Your task to perform on an android device: turn on location history Image 0: 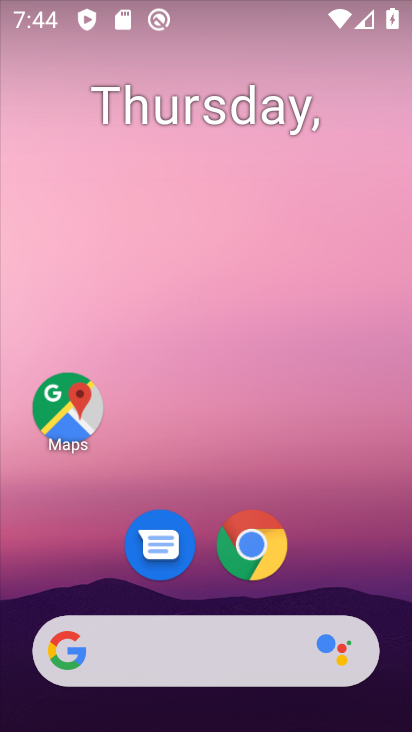
Step 0: click (219, 147)
Your task to perform on an android device: turn on location history Image 1: 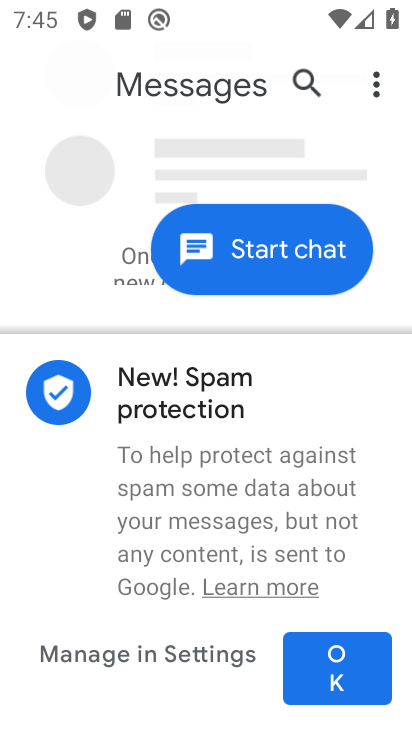
Step 1: press home button
Your task to perform on an android device: turn on location history Image 2: 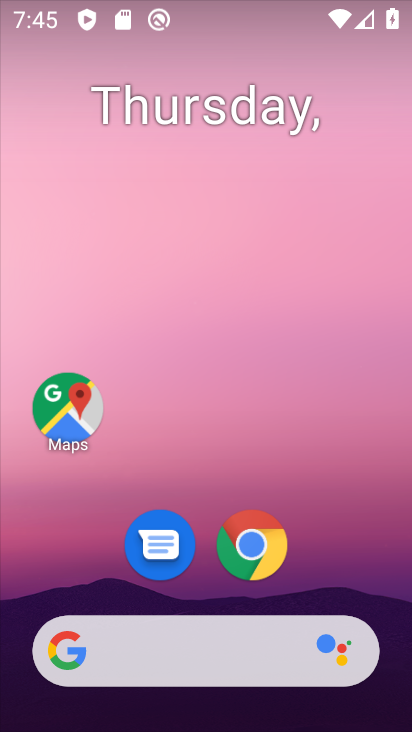
Step 2: drag from (192, 587) to (212, 157)
Your task to perform on an android device: turn on location history Image 3: 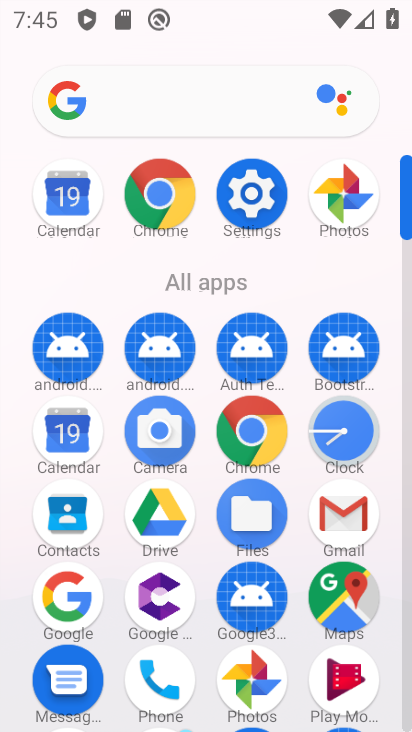
Step 3: click (269, 190)
Your task to perform on an android device: turn on location history Image 4: 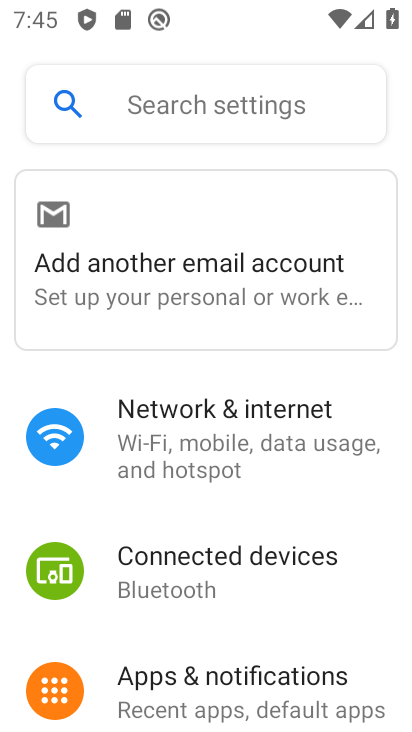
Step 4: drag from (231, 502) to (242, 50)
Your task to perform on an android device: turn on location history Image 5: 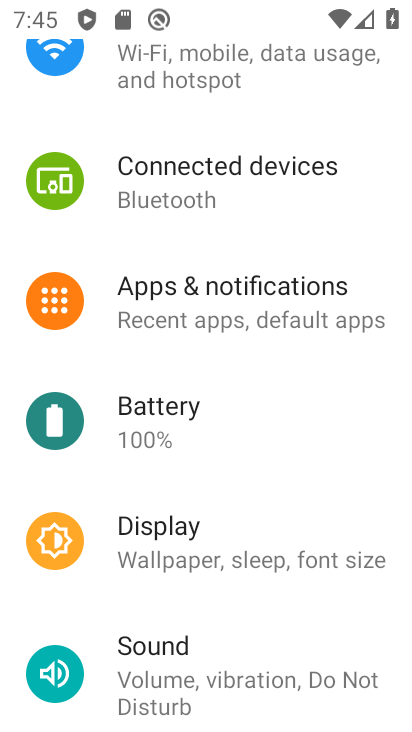
Step 5: drag from (243, 543) to (252, 60)
Your task to perform on an android device: turn on location history Image 6: 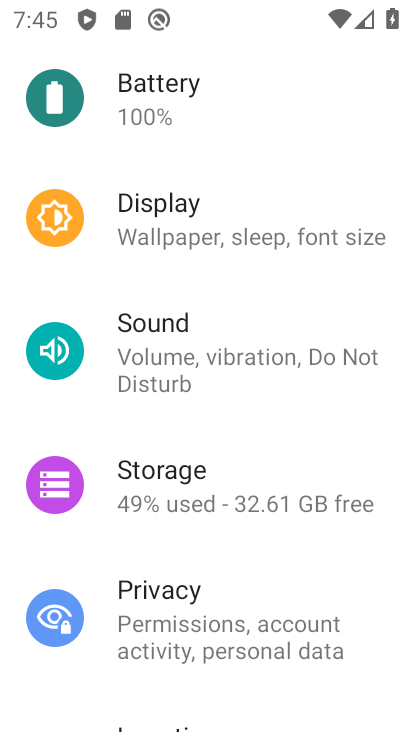
Step 6: drag from (189, 650) to (210, 133)
Your task to perform on an android device: turn on location history Image 7: 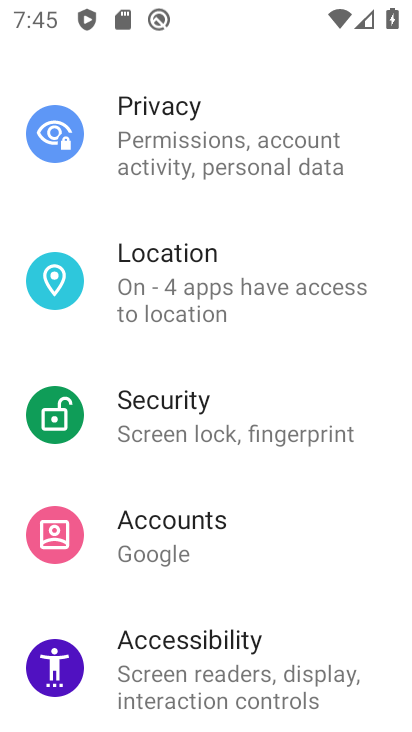
Step 7: drag from (236, 598) to (275, 327)
Your task to perform on an android device: turn on location history Image 8: 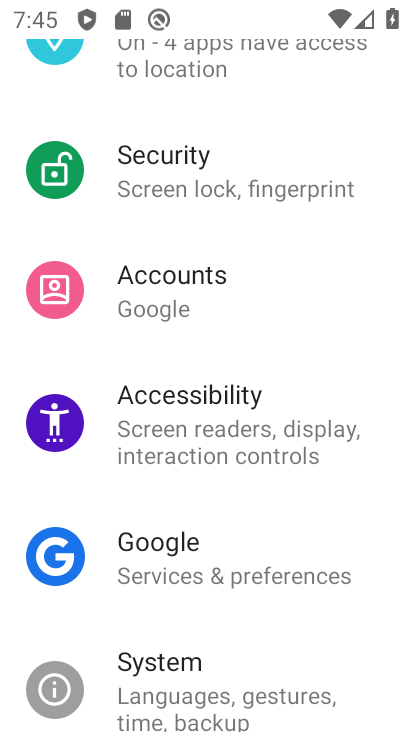
Step 8: click (205, 70)
Your task to perform on an android device: turn on location history Image 9: 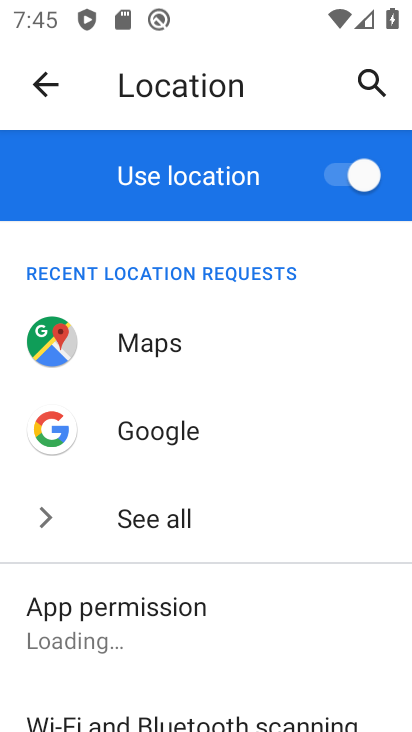
Step 9: drag from (235, 638) to (252, 207)
Your task to perform on an android device: turn on location history Image 10: 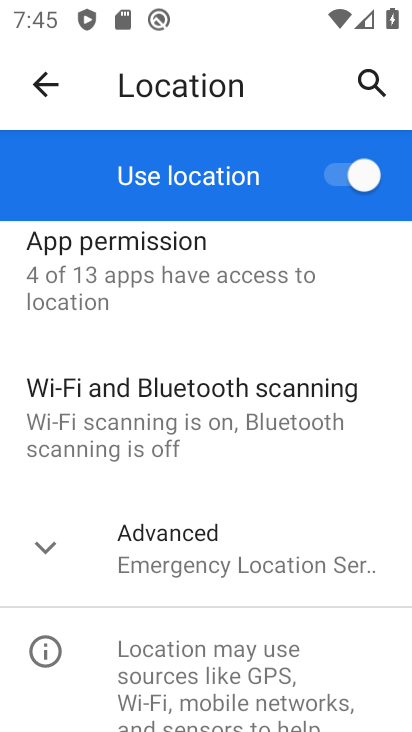
Step 10: click (177, 573)
Your task to perform on an android device: turn on location history Image 11: 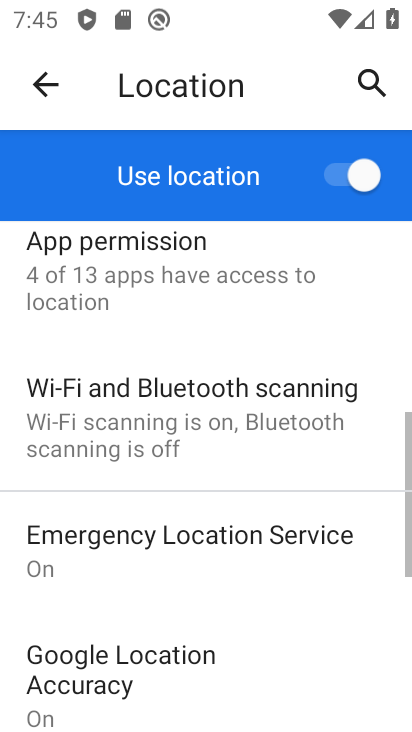
Step 11: drag from (188, 574) to (270, 159)
Your task to perform on an android device: turn on location history Image 12: 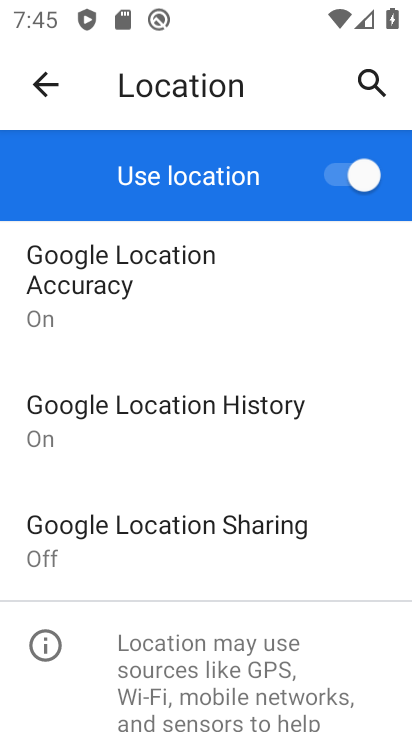
Step 12: click (206, 394)
Your task to perform on an android device: turn on location history Image 13: 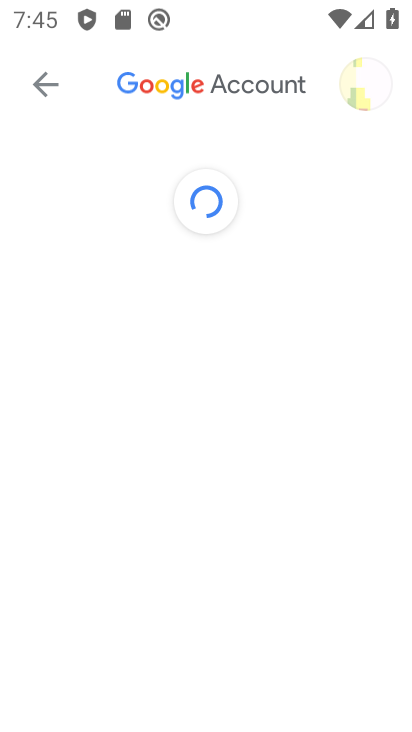
Step 13: drag from (206, 559) to (289, 83)
Your task to perform on an android device: turn on location history Image 14: 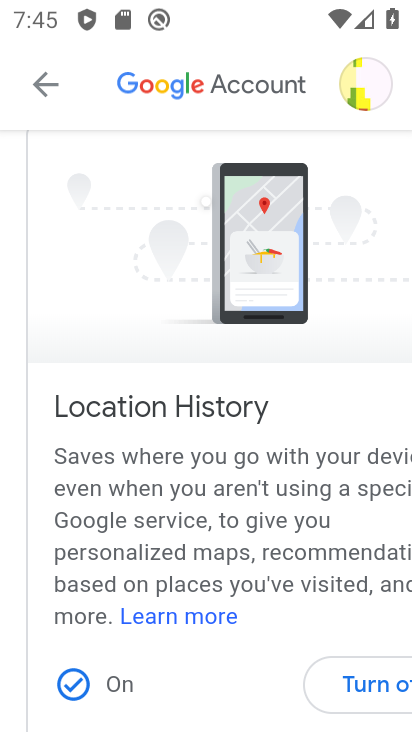
Step 14: drag from (232, 612) to (327, 254)
Your task to perform on an android device: turn on location history Image 15: 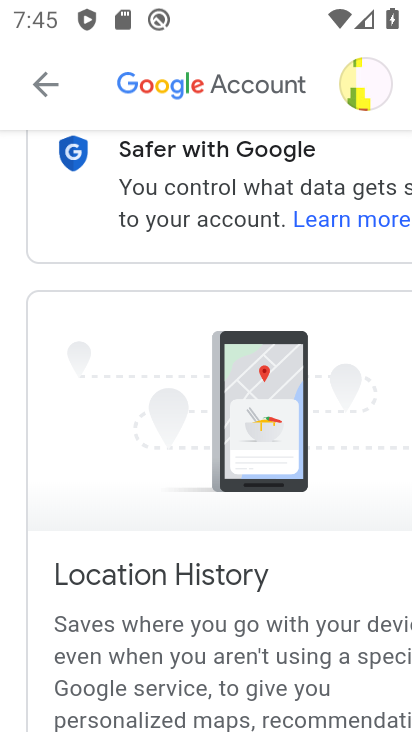
Step 15: drag from (283, 670) to (345, 125)
Your task to perform on an android device: turn on location history Image 16: 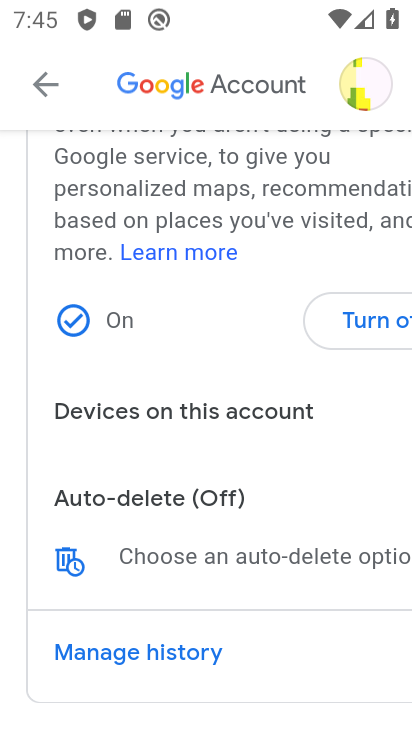
Step 16: click (81, 340)
Your task to perform on an android device: turn on location history Image 17: 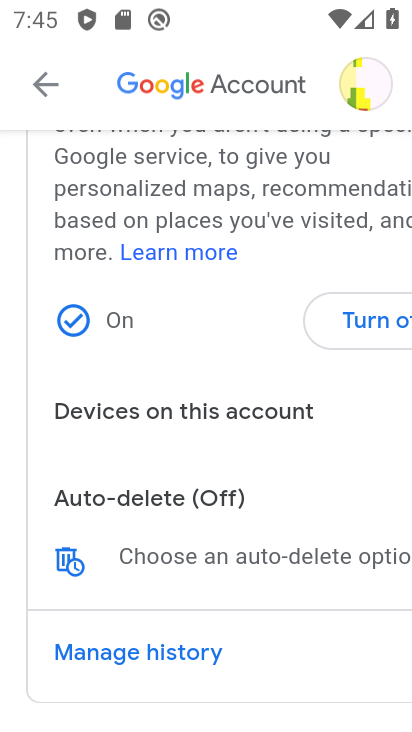
Step 17: task complete